Your task to perform on an android device: turn off translation in the chrome app Image 0: 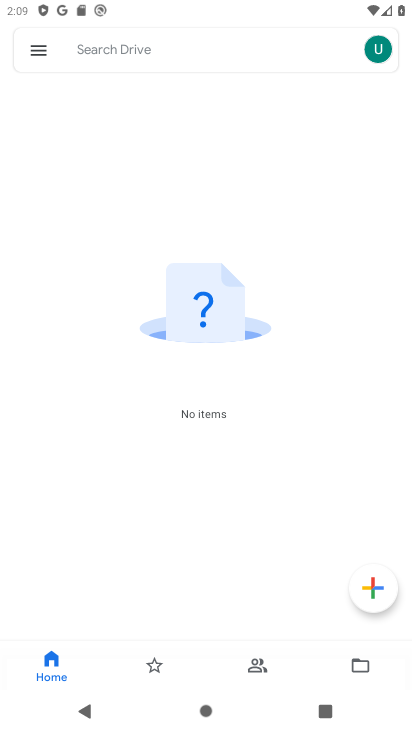
Step 0: press home button
Your task to perform on an android device: turn off translation in the chrome app Image 1: 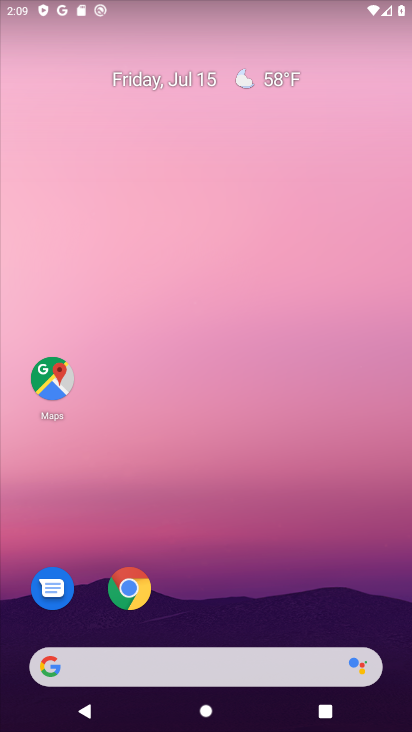
Step 1: click (138, 595)
Your task to perform on an android device: turn off translation in the chrome app Image 2: 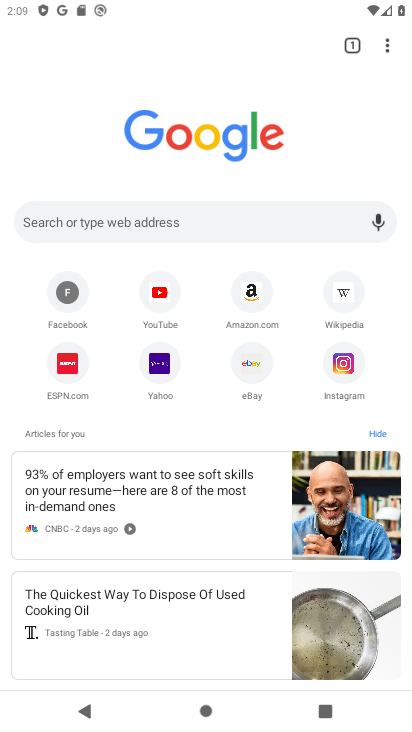
Step 2: click (387, 34)
Your task to perform on an android device: turn off translation in the chrome app Image 3: 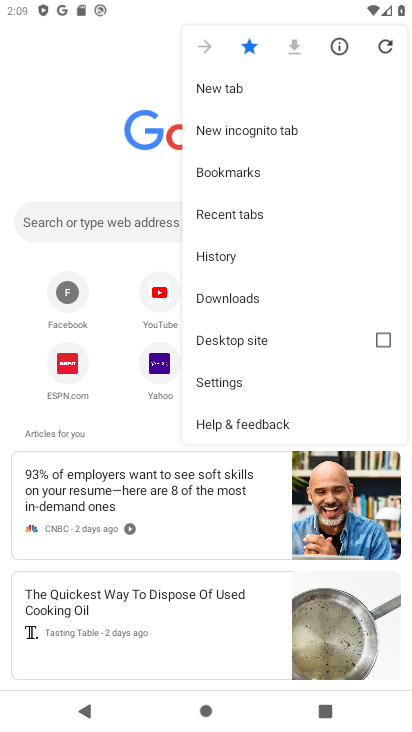
Step 3: click (278, 384)
Your task to perform on an android device: turn off translation in the chrome app Image 4: 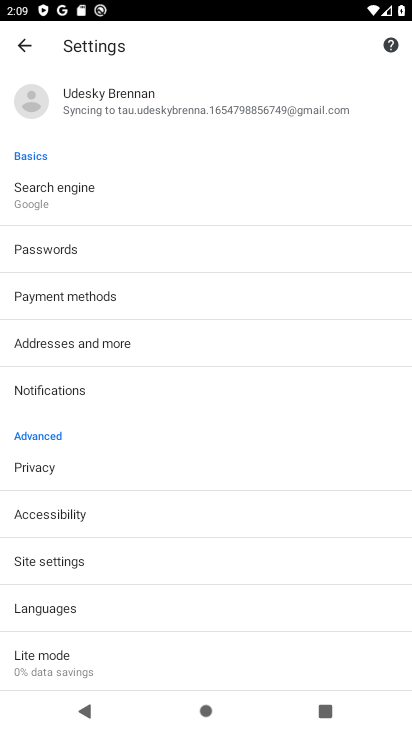
Step 4: click (183, 605)
Your task to perform on an android device: turn off translation in the chrome app Image 5: 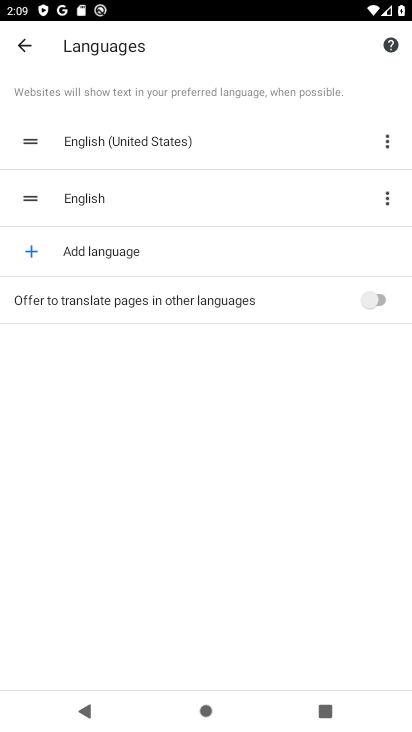
Step 5: click (363, 315)
Your task to perform on an android device: turn off translation in the chrome app Image 6: 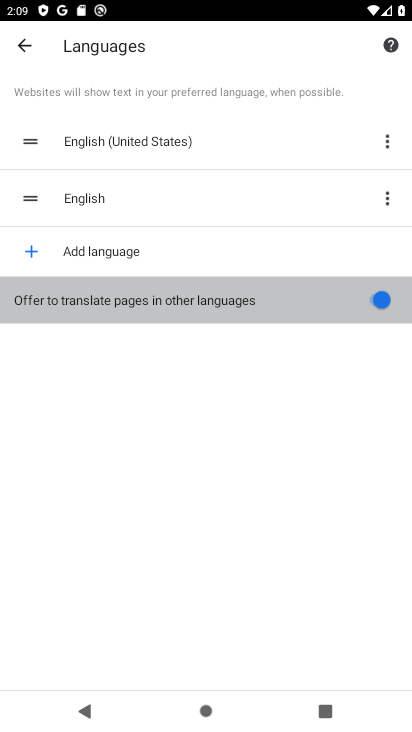
Step 6: click (363, 315)
Your task to perform on an android device: turn off translation in the chrome app Image 7: 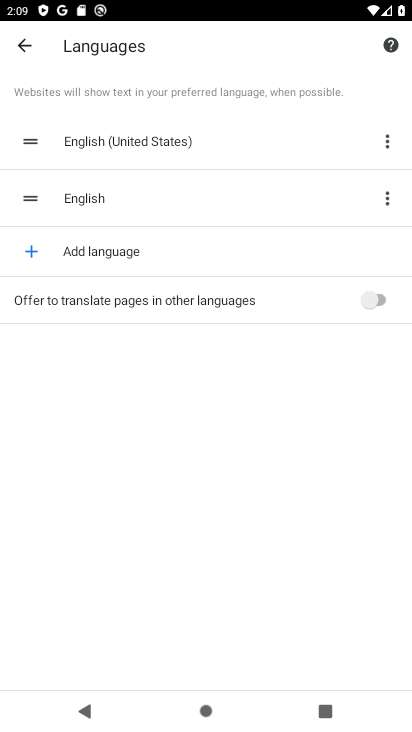
Step 7: task complete